Your task to perform on an android device: open app "Instagram" (install if not already installed) Image 0: 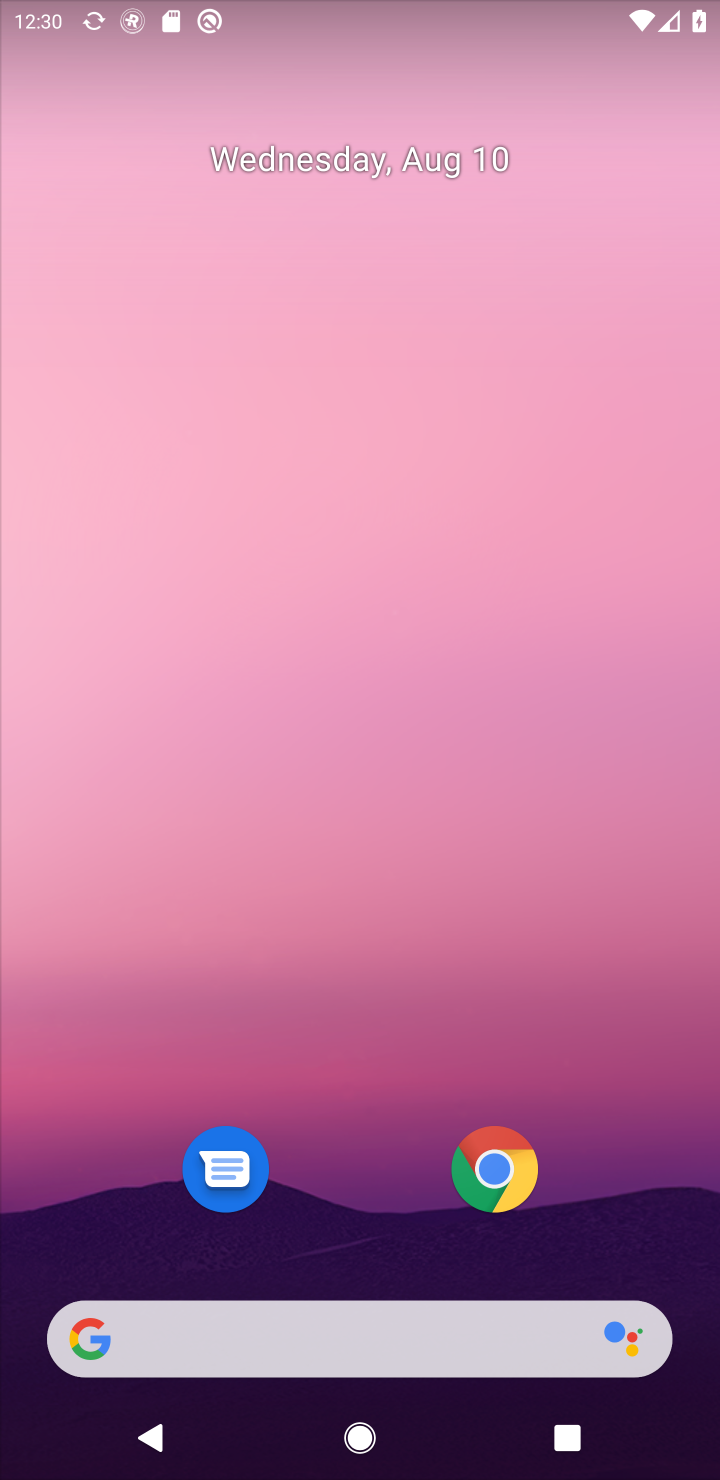
Step 0: drag from (599, 880) to (614, 95)
Your task to perform on an android device: open app "Instagram" (install if not already installed) Image 1: 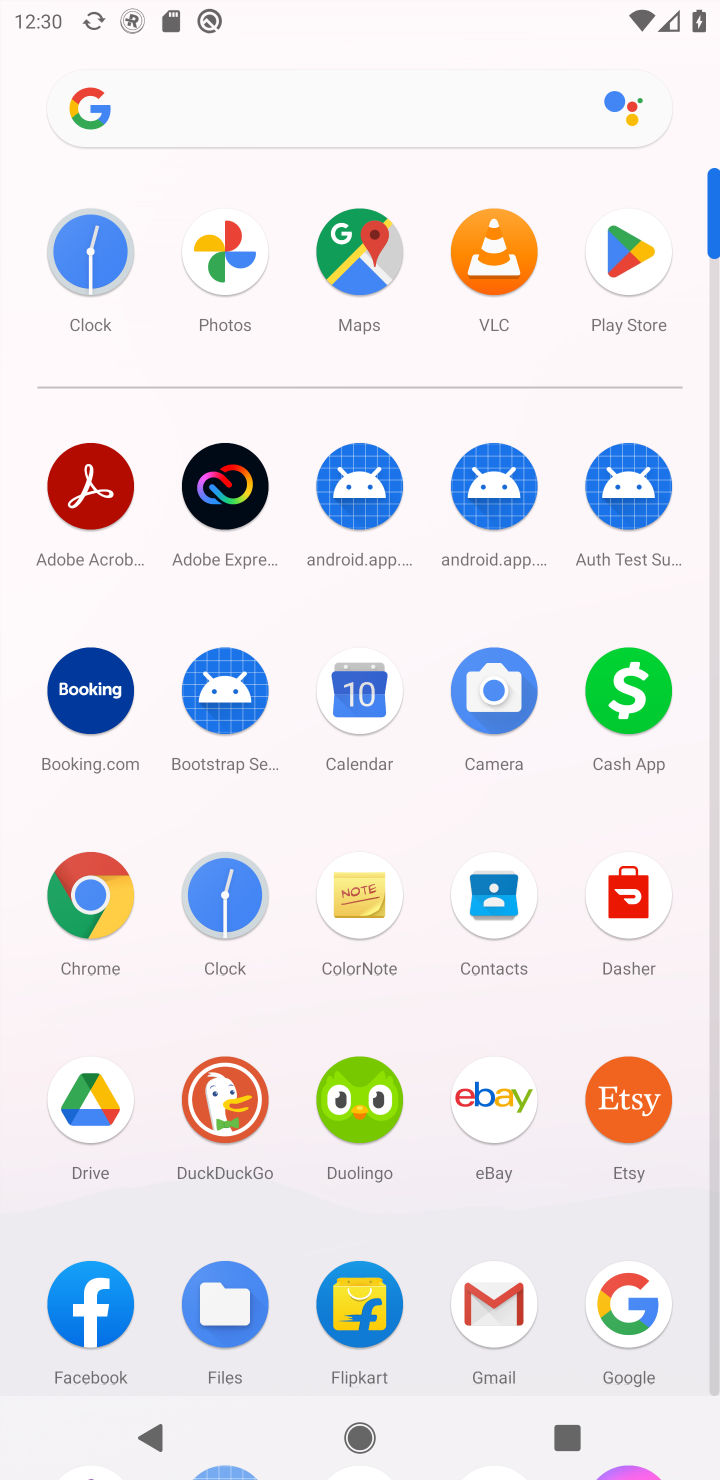
Step 1: click (622, 240)
Your task to perform on an android device: open app "Instagram" (install if not already installed) Image 2: 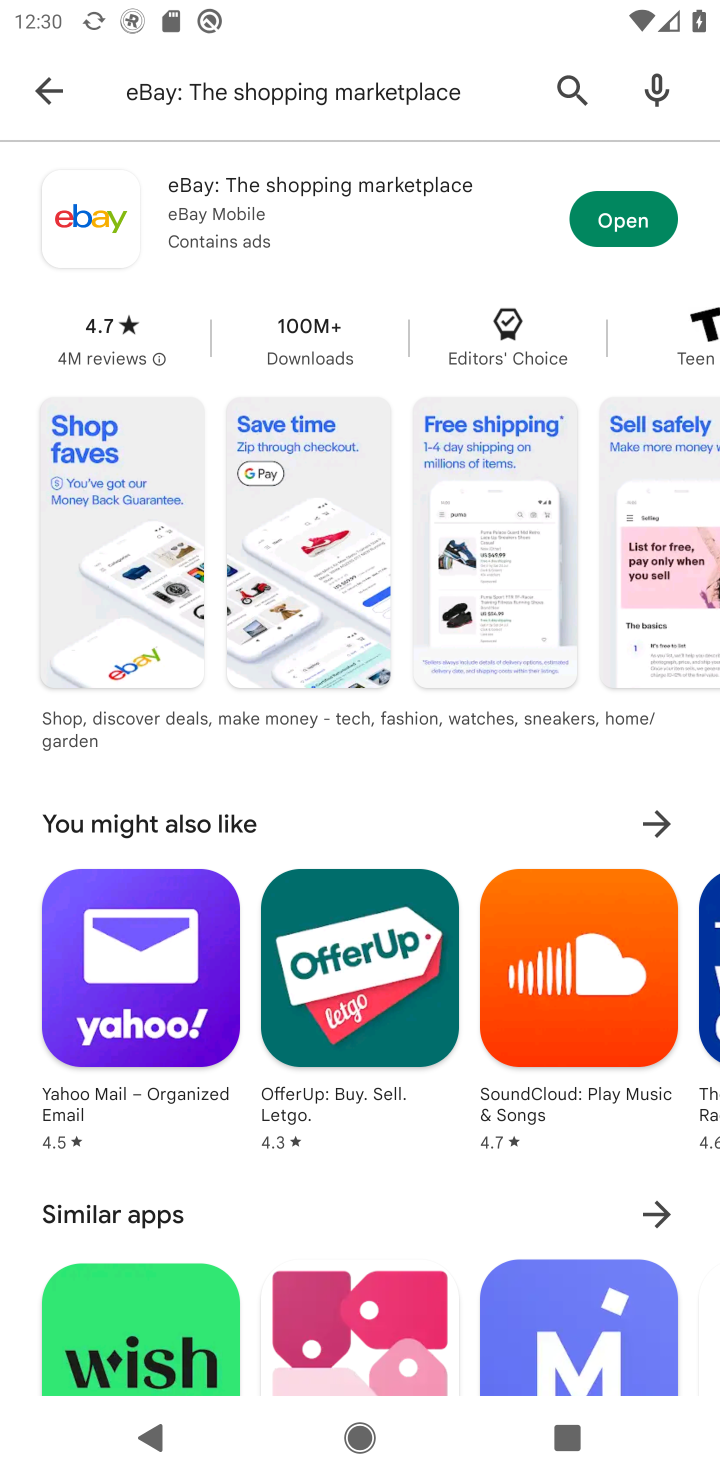
Step 2: click (560, 70)
Your task to perform on an android device: open app "Instagram" (install if not already installed) Image 3: 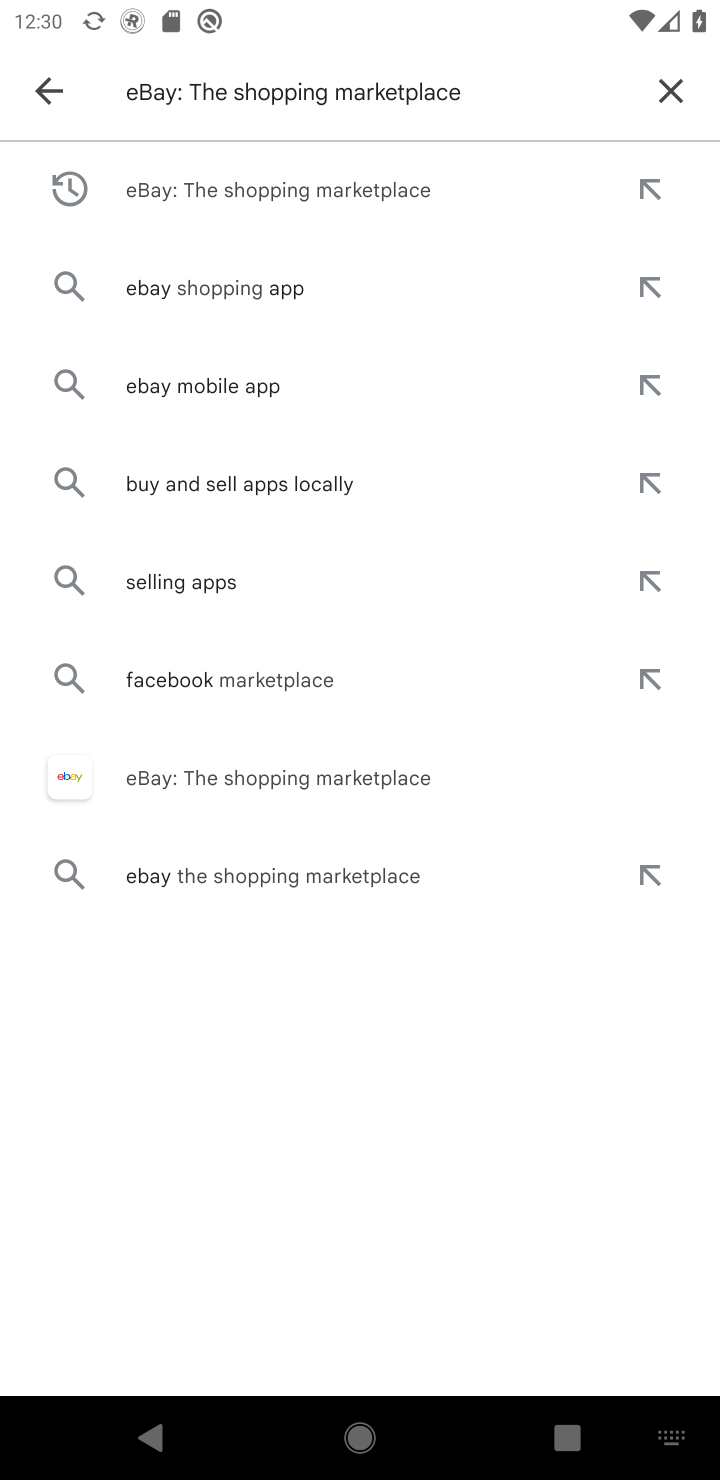
Step 3: click (676, 87)
Your task to perform on an android device: open app "Instagram" (install if not already installed) Image 4: 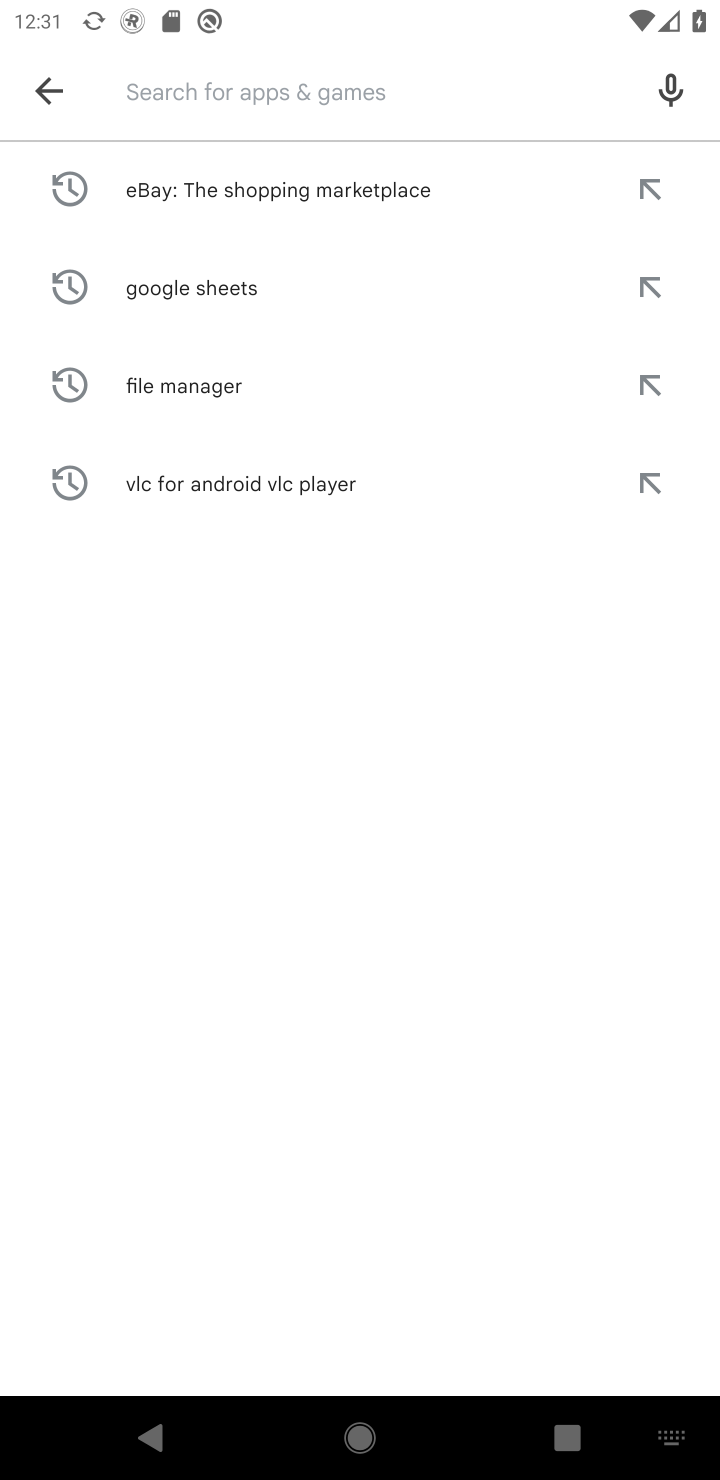
Step 4: press enter
Your task to perform on an android device: open app "Instagram" (install if not already installed) Image 5: 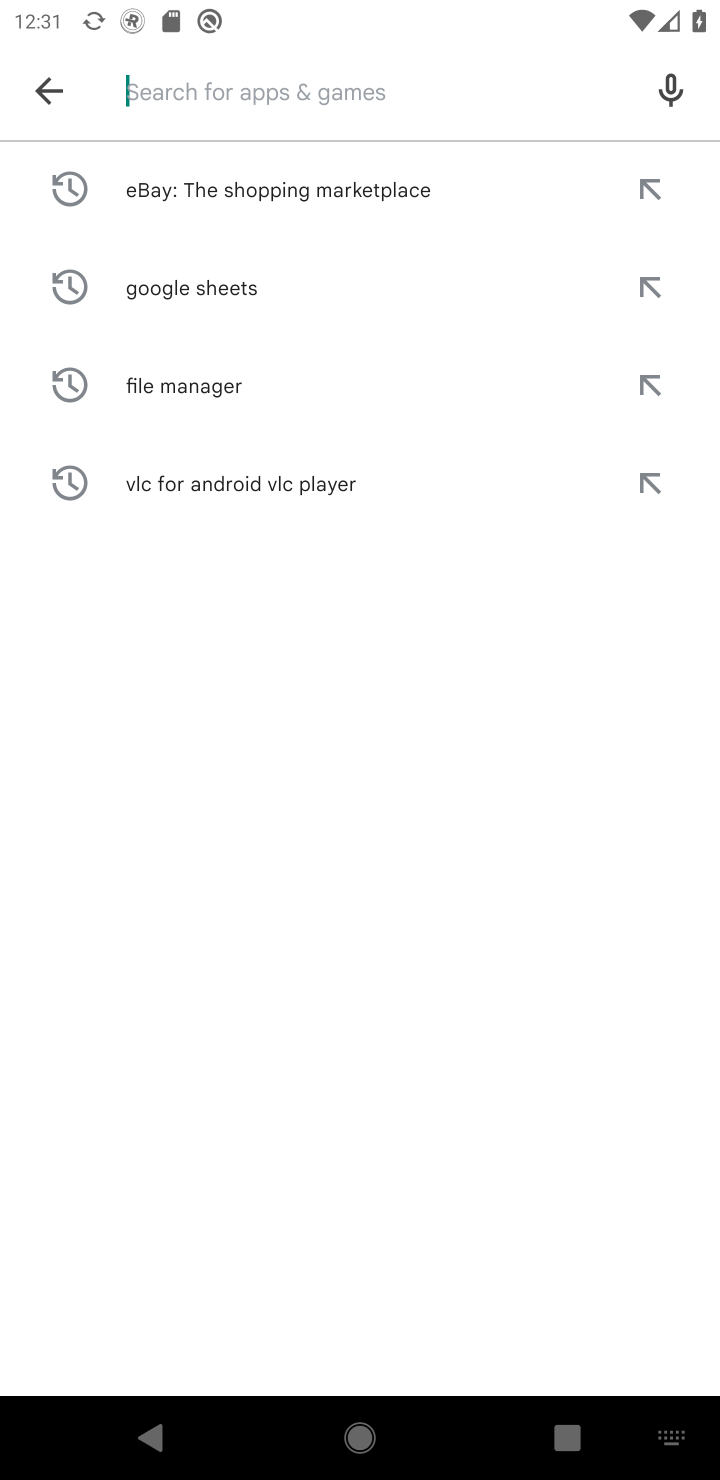
Step 5: type "instagram"
Your task to perform on an android device: open app "Instagram" (install if not already installed) Image 6: 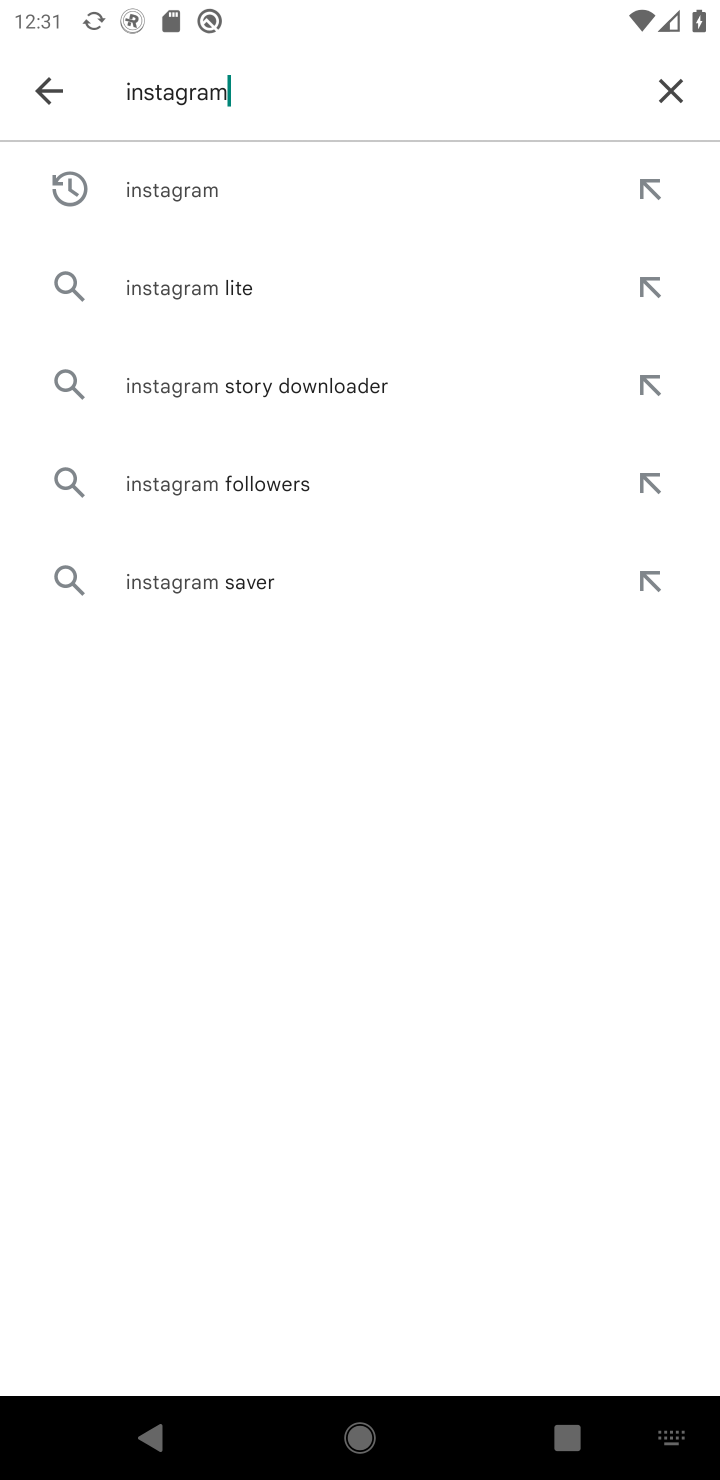
Step 6: click (171, 186)
Your task to perform on an android device: open app "Instagram" (install if not already installed) Image 7: 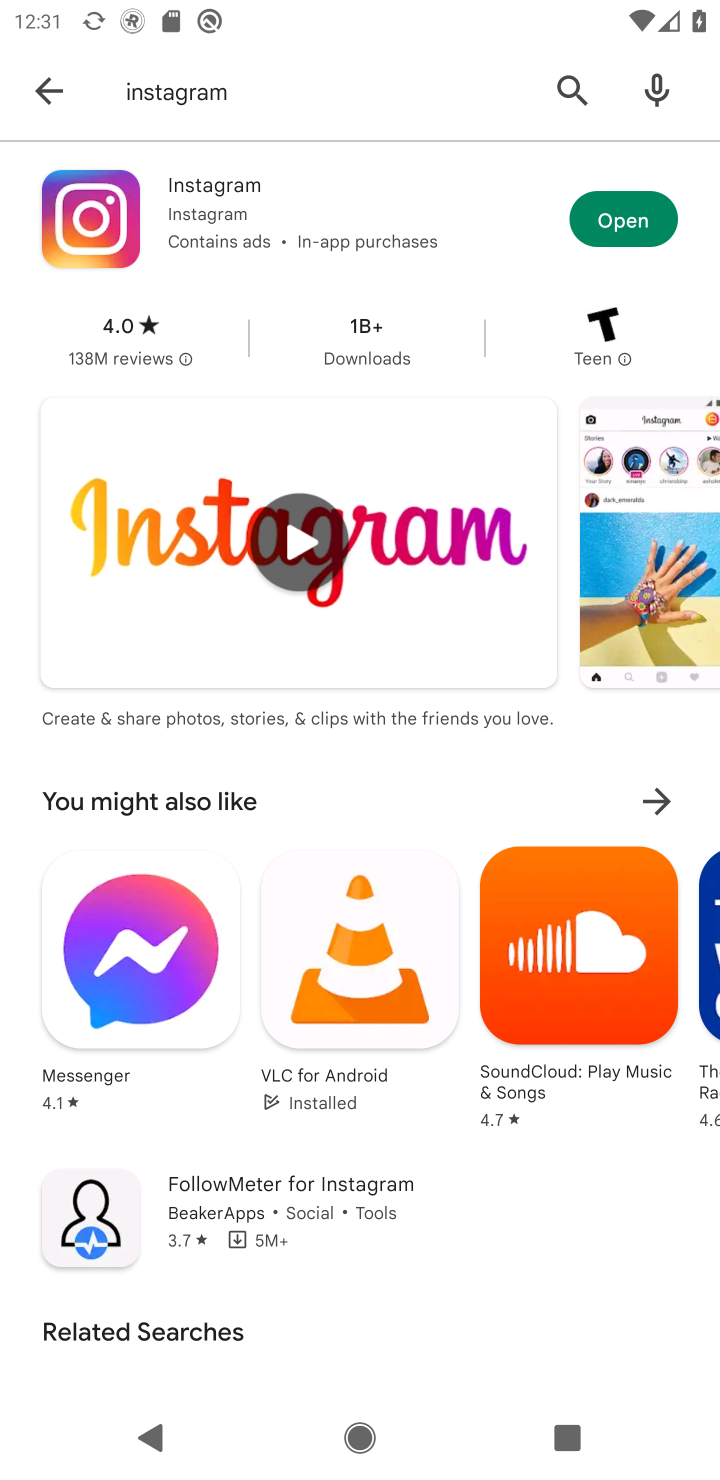
Step 7: click (619, 222)
Your task to perform on an android device: open app "Instagram" (install if not already installed) Image 8: 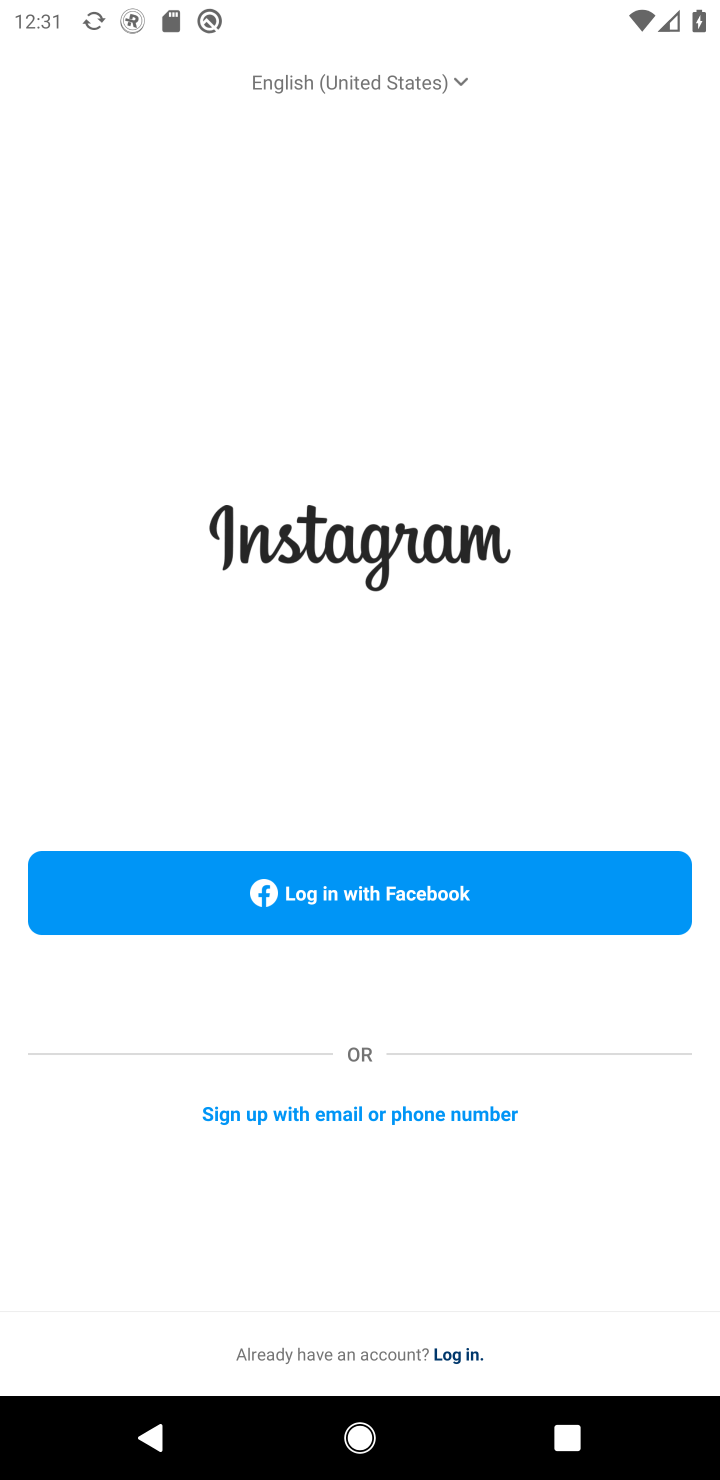
Step 8: task complete